Your task to perform on an android device: Open Youtube and go to "Your channel" Image 0: 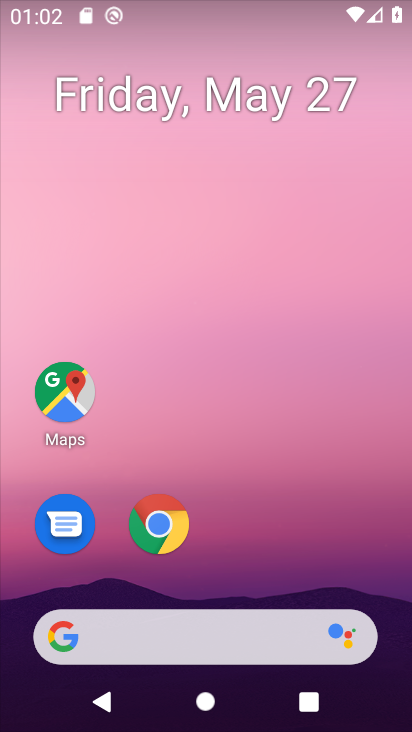
Step 0: drag from (277, 541) to (275, 49)
Your task to perform on an android device: Open Youtube and go to "Your channel" Image 1: 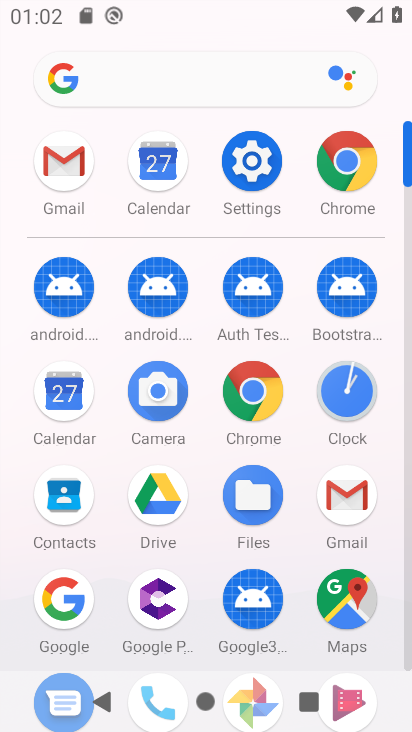
Step 1: drag from (207, 535) to (221, 237)
Your task to perform on an android device: Open Youtube and go to "Your channel" Image 2: 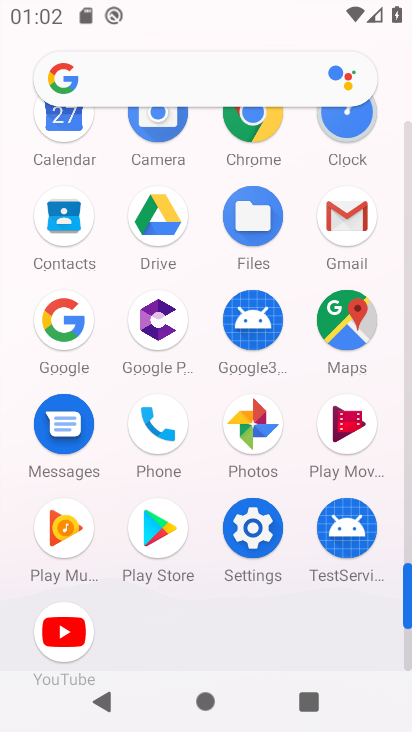
Step 2: click (64, 620)
Your task to perform on an android device: Open Youtube and go to "Your channel" Image 3: 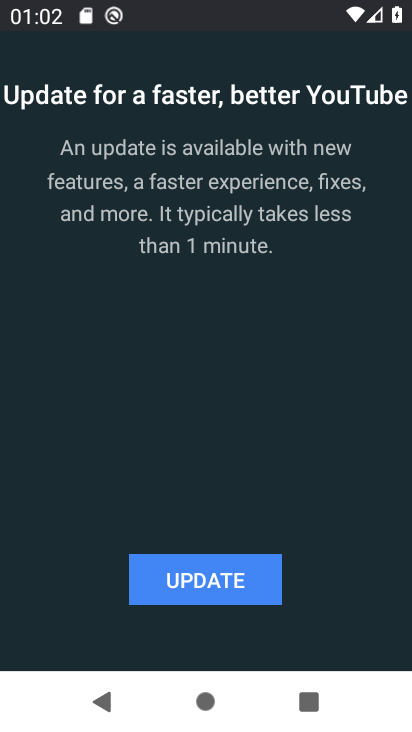
Step 3: click (226, 580)
Your task to perform on an android device: Open Youtube and go to "Your channel" Image 4: 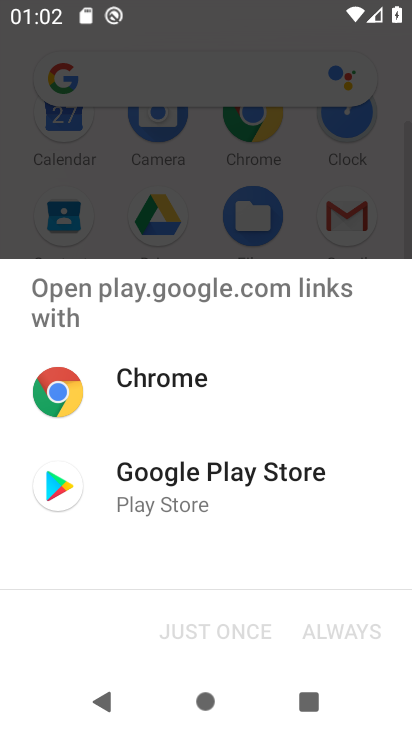
Step 4: click (196, 477)
Your task to perform on an android device: Open Youtube and go to "Your channel" Image 5: 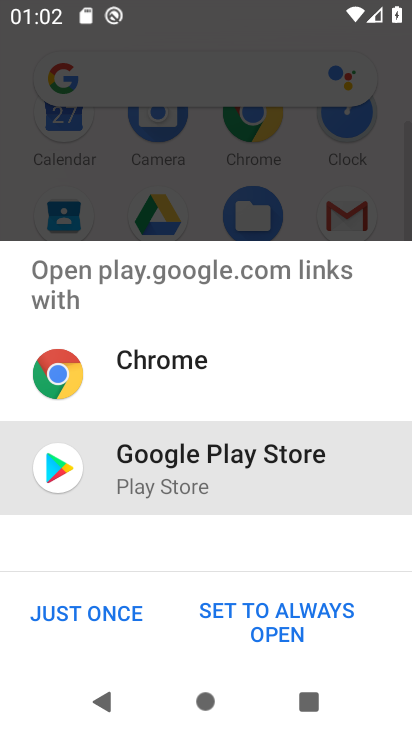
Step 5: click (121, 605)
Your task to perform on an android device: Open Youtube and go to "Your channel" Image 6: 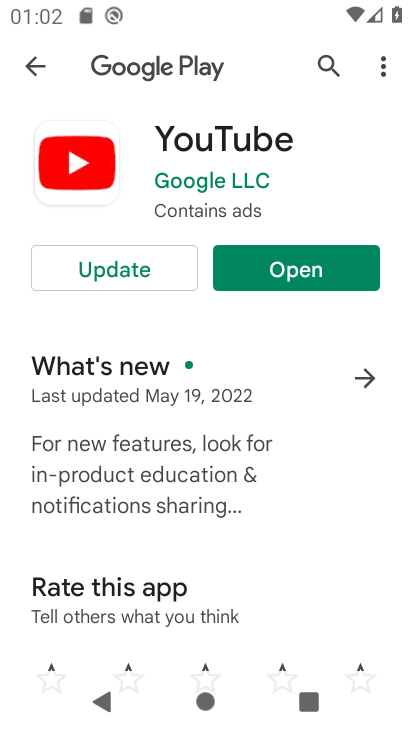
Step 6: click (152, 264)
Your task to perform on an android device: Open Youtube and go to "Your channel" Image 7: 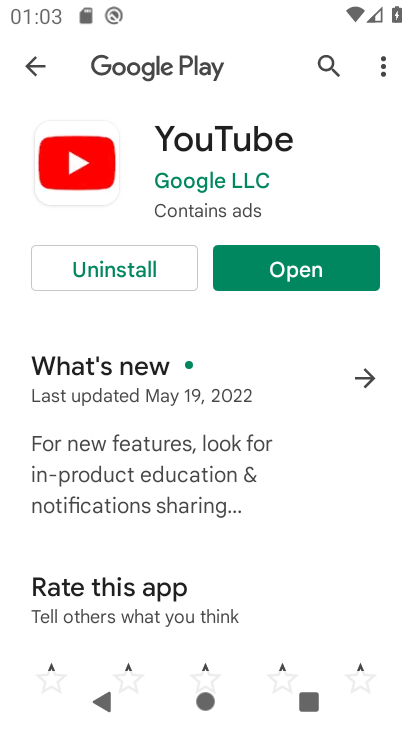
Step 7: click (280, 278)
Your task to perform on an android device: Open Youtube and go to "Your channel" Image 8: 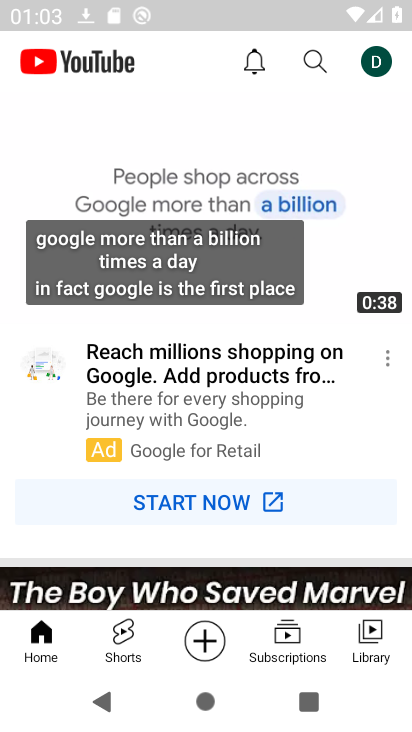
Step 8: click (376, 58)
Your task to perform on an android device: Open Youtube and go to "Your channel" Image 9: 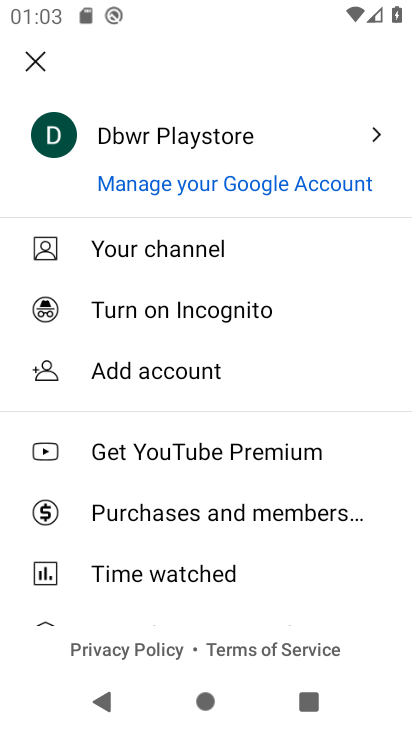
Step 9: click (207, 255)
Your task to perform on an android device: Open Youtube and go to "Your channel" Image 10: 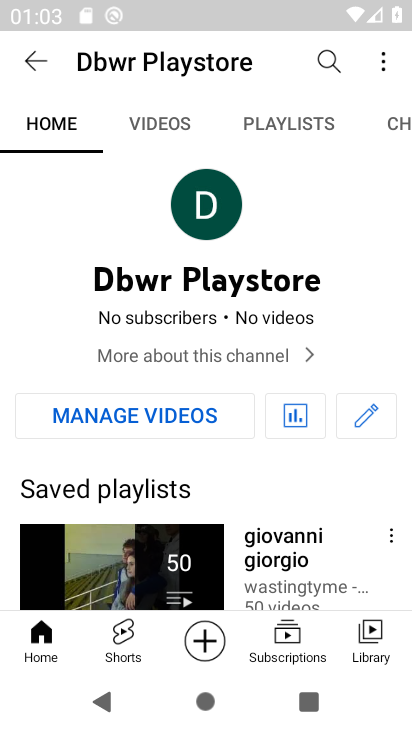
Step 10: task complete